Your task to perform on an android device: set the timer Image 0: 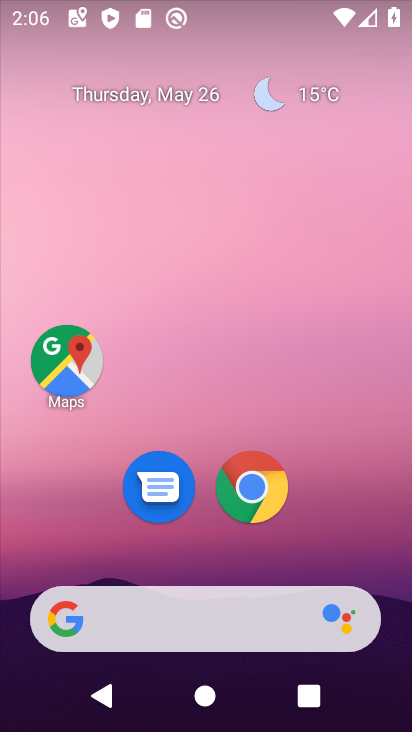
Step 0: drag from (222, 559) to (180, 176)
Your task to perform on an android device: set the timer Image 1: 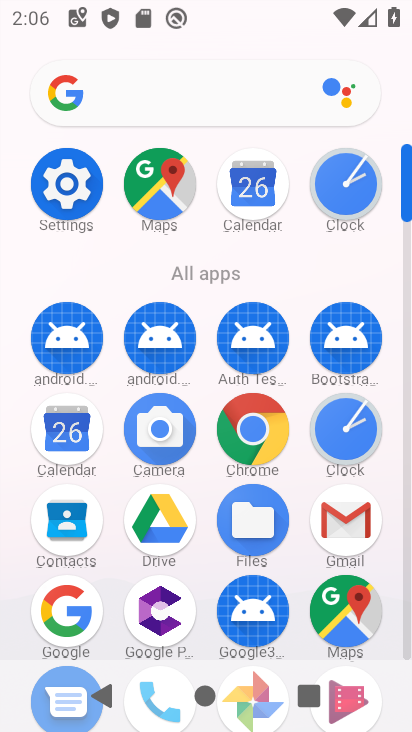
Step 1: click (333, 190)
Your task to perform on an android device: set the timer Image 2: 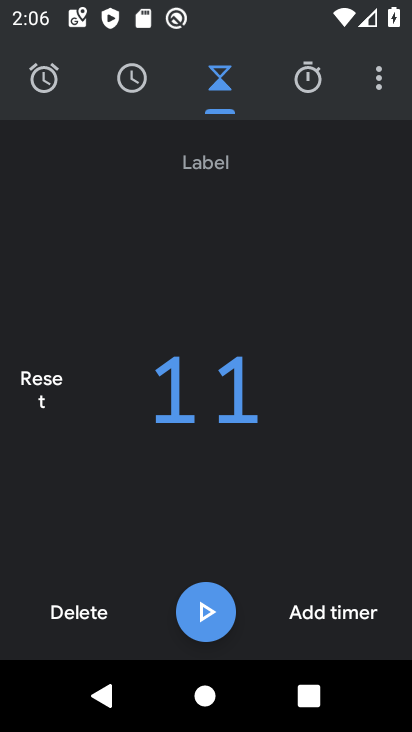
Step 2: task complete